Your task to perform on an android device: turn on priority inbox in the gmail app Image 0: 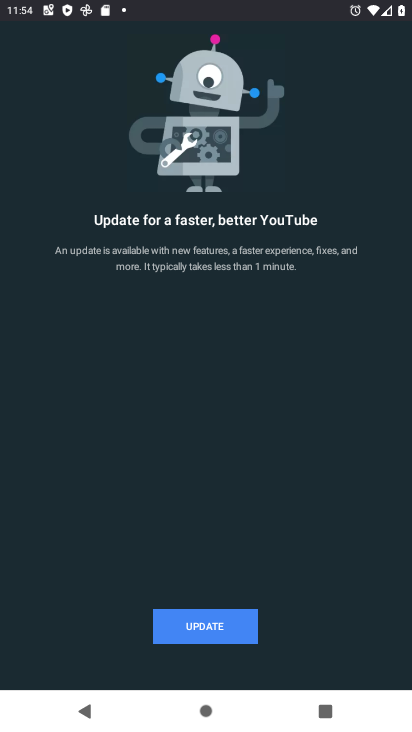
Step 0: press home button
Your task to perform on an android device: turn on priority inbox in the gmail app Image 1: 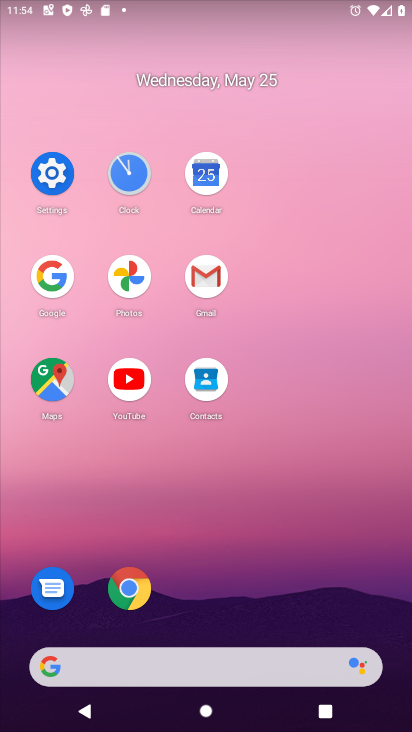
Step 1: click (203, 270)
Your task to perform on an android device: turn on priority inbox in the gmail app Image 2: 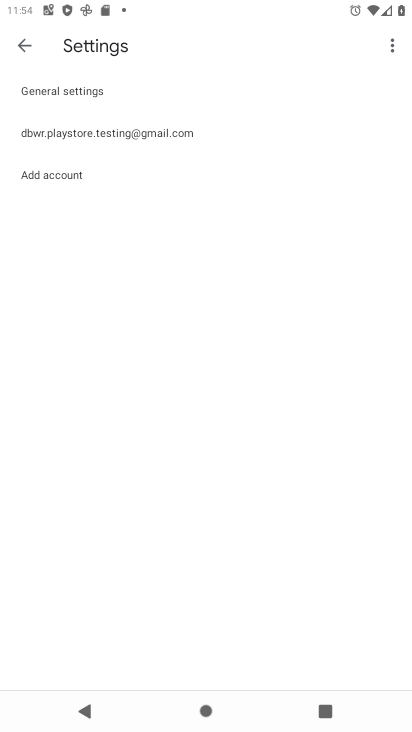
Step 2: click (15, 44)
Your task to perform on an android device: turn on priority inbox in the gmail app Image 3: 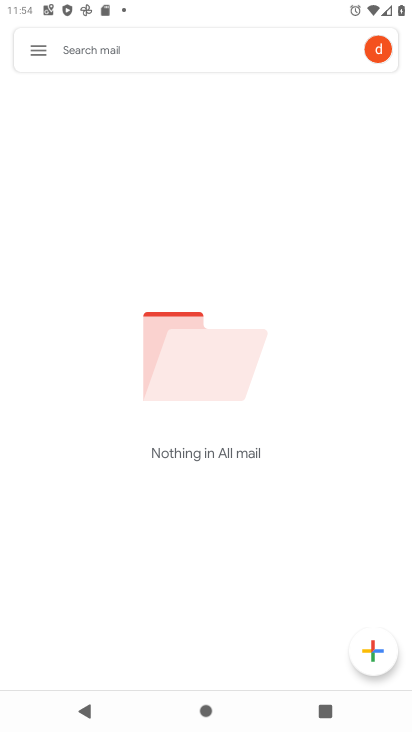
Step 3: click (39, 51)
Your task to perform on an android device: turn on priority inbox in the gmail app Image 4: 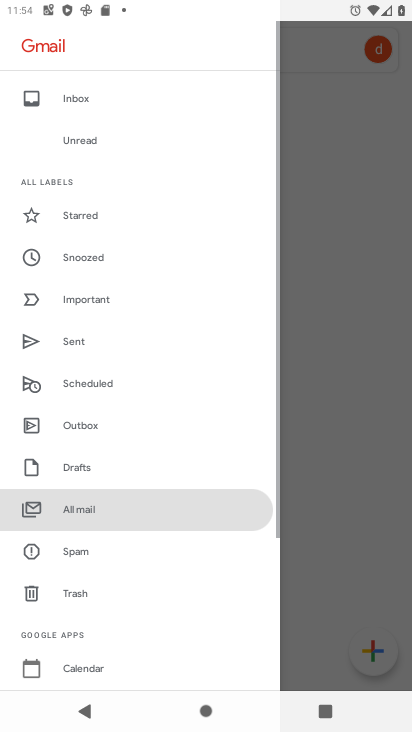
Step 4: drag from (146, 625) to (199, 277)
Your task to perform on an android device: turn on priority inbox in the gmail app Image 5: 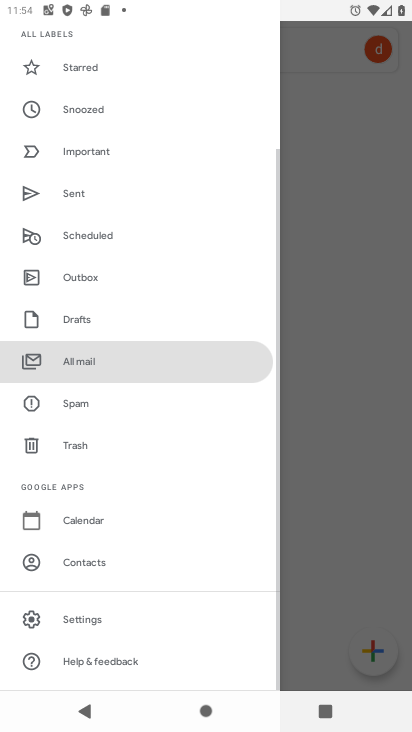
Step 5: click (116, 616)
Your task to perform on an android device: turn on priority inbox in the gmail app Image 6: 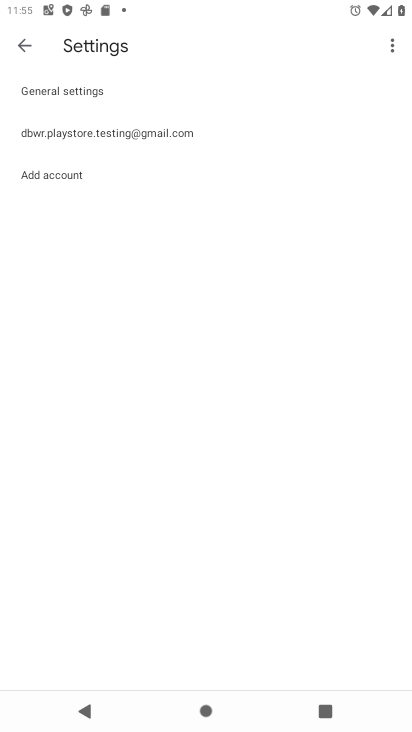
Step 6: click (166, 125)
Your task to perform on an android device: turn on priority inbox in the gmail app Image 7: 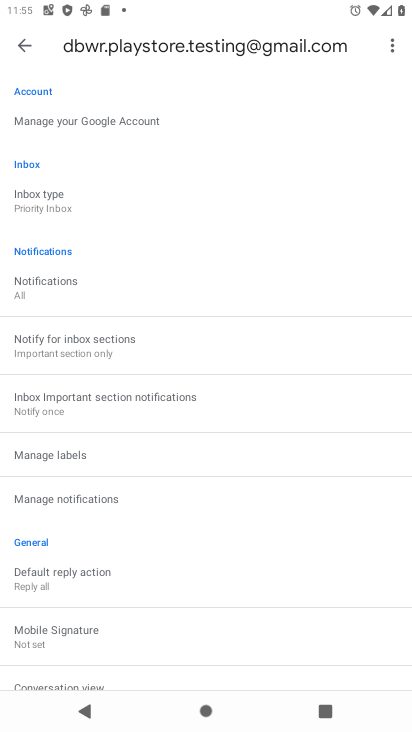
Step 7: task complete